Your task to perform on an android device: Go to eBay Image 0: 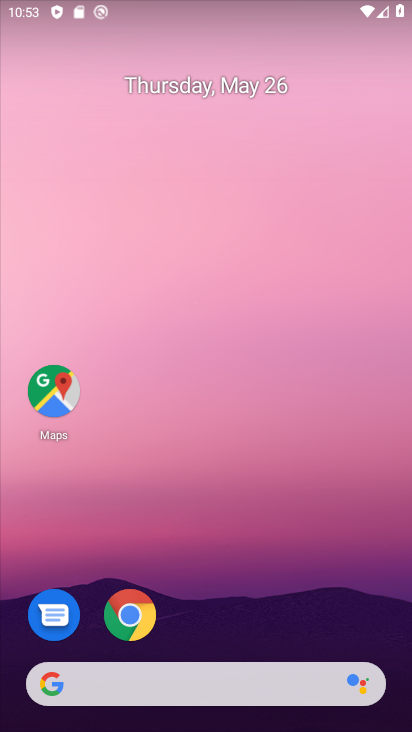
Step 0: click (148, 606)
Your task to perform on an android device: Go to eBay Image 1: 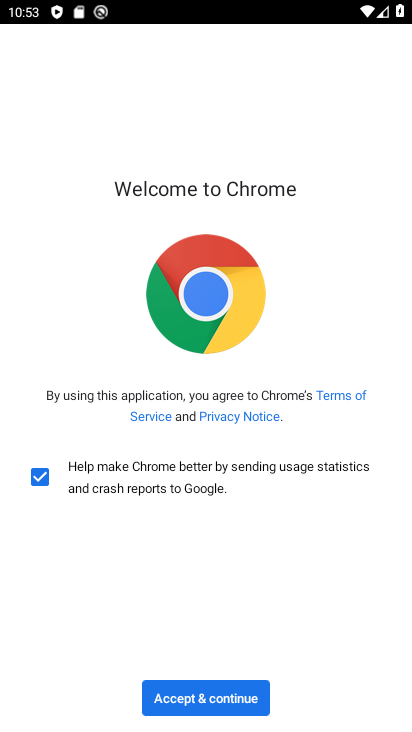
Step 1: click (224, 712)
Your task to perform on an android device: Go to eBay Image 2: 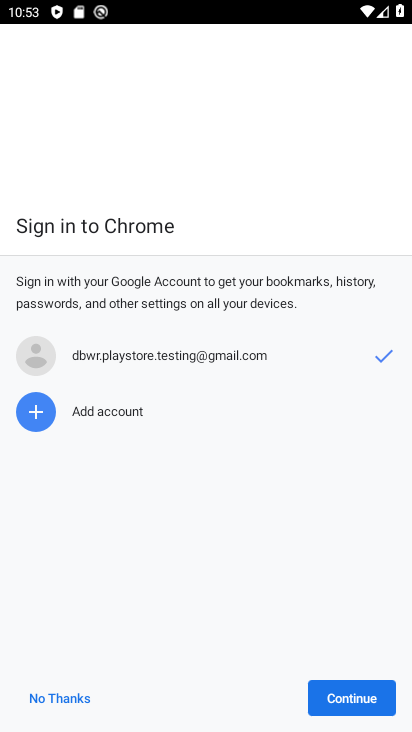
Step 2: click (362, 674)
Your task to perform on an android device: Go to eBay Image 3: 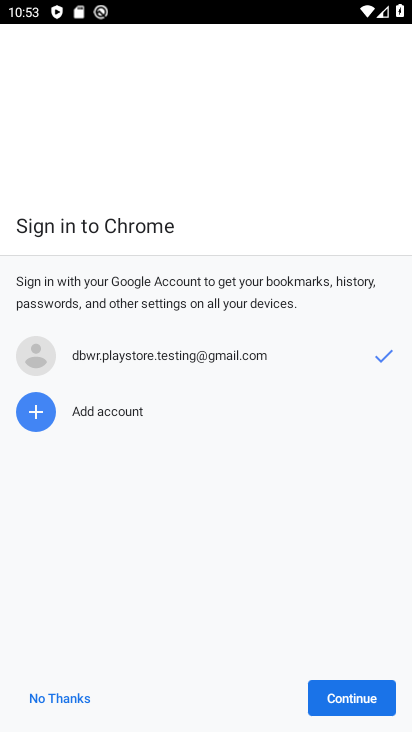
Step 3: click (360, 674)
Your task to perform on an android device: Go to eBay Image 4: 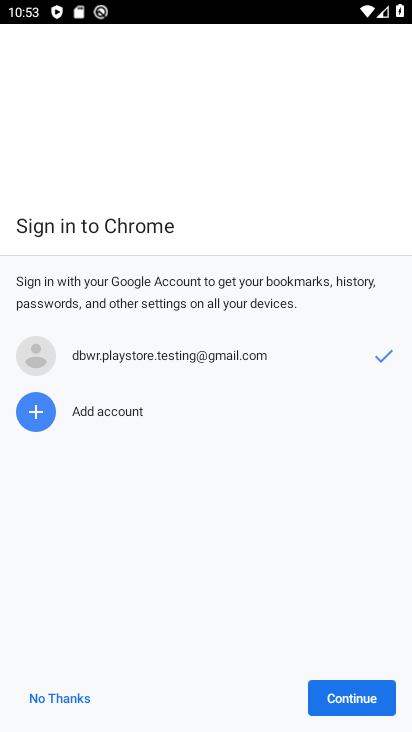
Step 4: click (368, 607)
Your task to perform on an android device: Go to eBay Image 5: 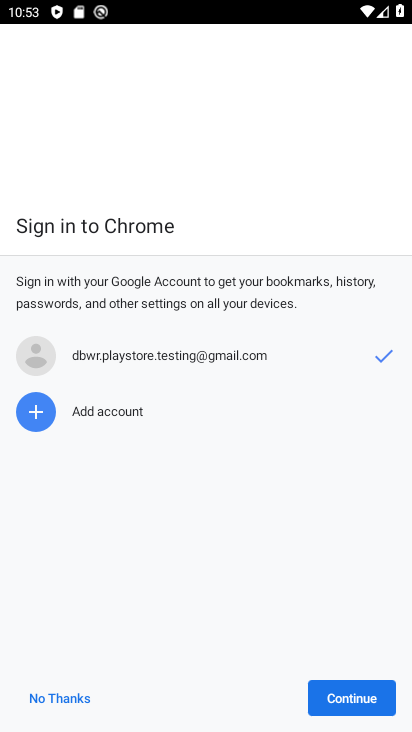
Step 5: click (368, 607)
Your task to perform on an android device: Go to eBay Image 6: 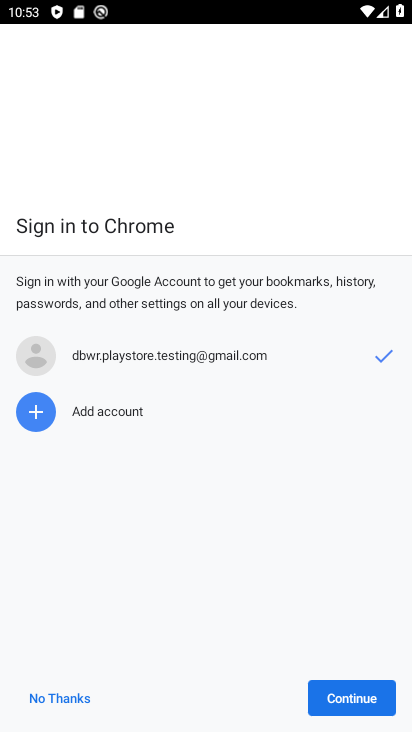
Step 6: click (368, 607)
Your task to perform on an android device: Go to eBay Image 7: 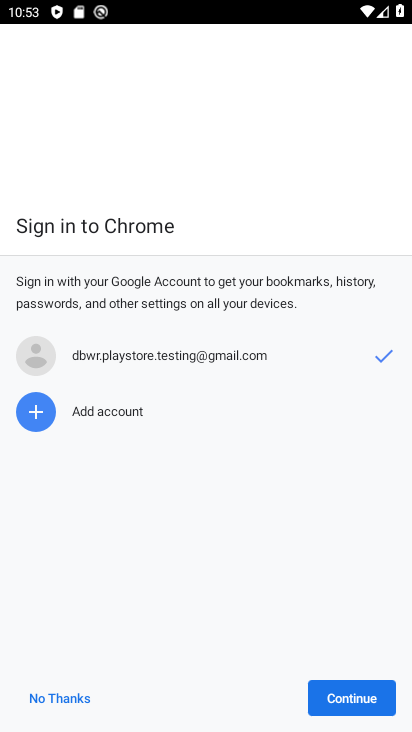
Step 7: click (368, 607)
Your task to perform on an android device: Go to eBay Image 8: 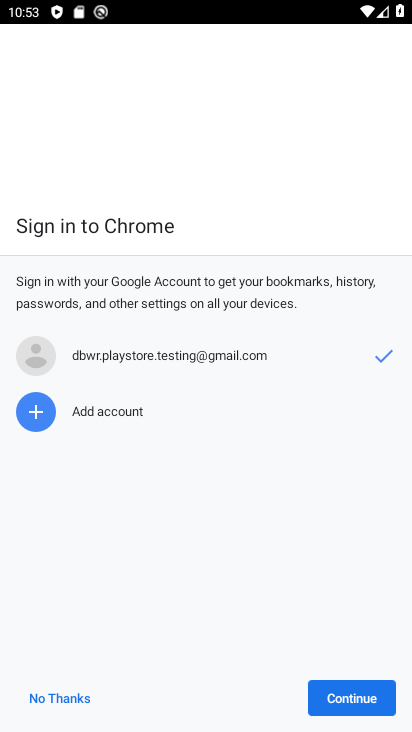
Step 8: click (366, 693)
Your task to perform on an android device: Go to eBay Image 9: 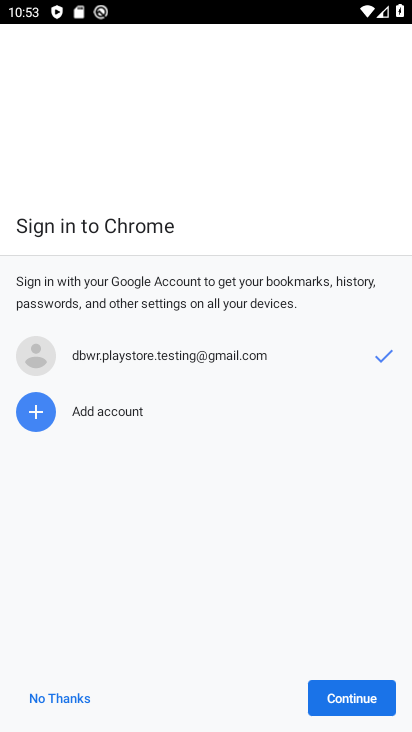
Step 9: click (366, 693)
Your task to perform on an android device: Go to eBay Image 10: 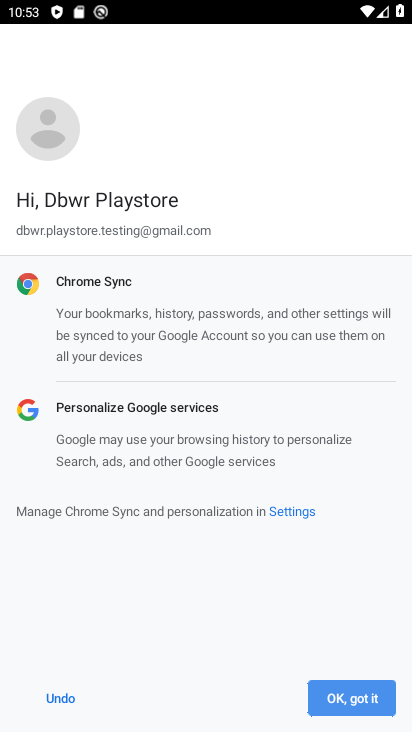
Step 10: click (366, 693)
Your task to perform on an android device: Go to eBay Image 11: 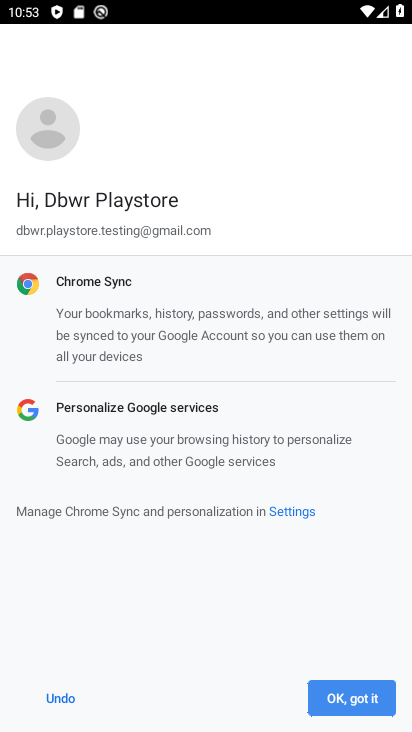
Step 11: click (366, 693)
Your task to perform on an android device: Go to eBay Image 12: 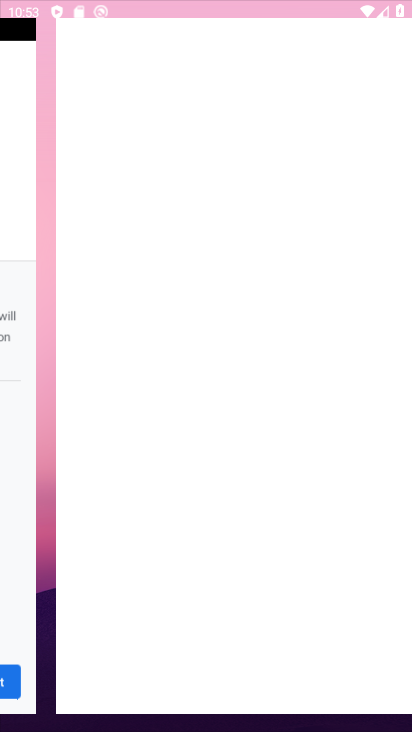
Step 12: click (366, 693)
Your task to perform on an android device: Go to eBay Image 13: 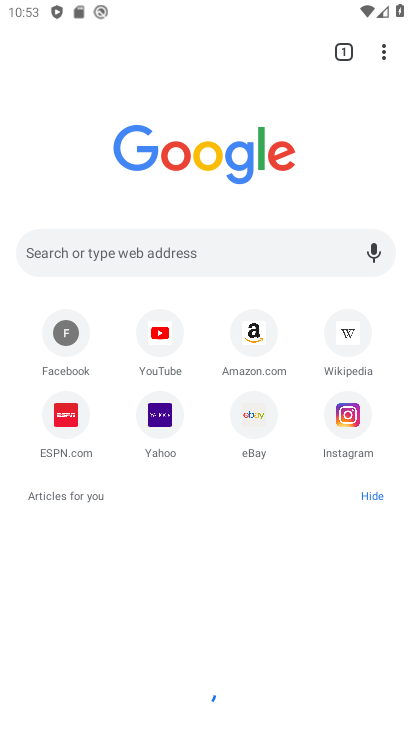
Step 13: click (250, 435)
Your task to perform on an android device: Go to eBay Image 14: 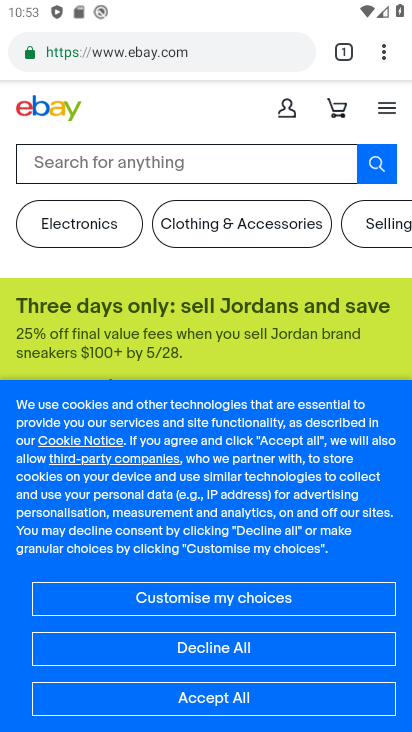
Step 14: task complete